Your task to perform on an android device: turn on wifi Image 0: 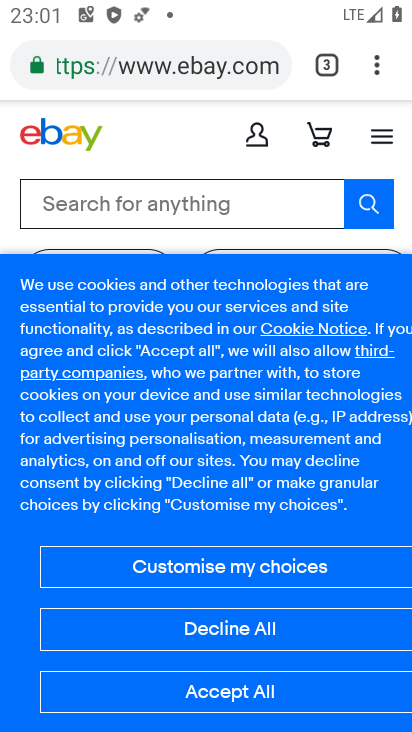
Step 0: press home button
Your task to perform on an android device: turn on wifi Image 1: 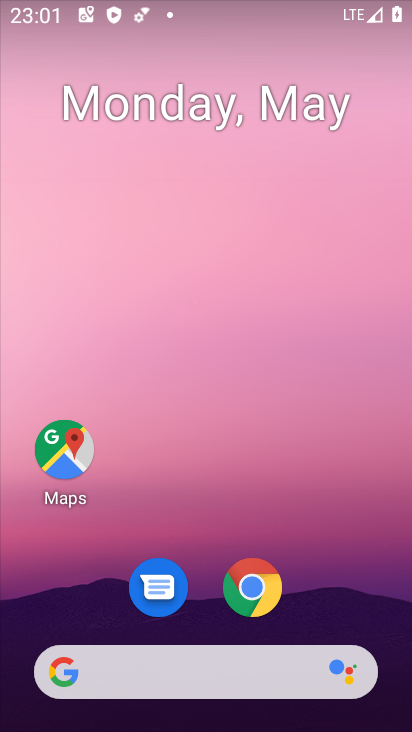
Step 1: drag from (207, 656) to (363, 16)
Your task to perform on an android device: turn on wifi Image 2: 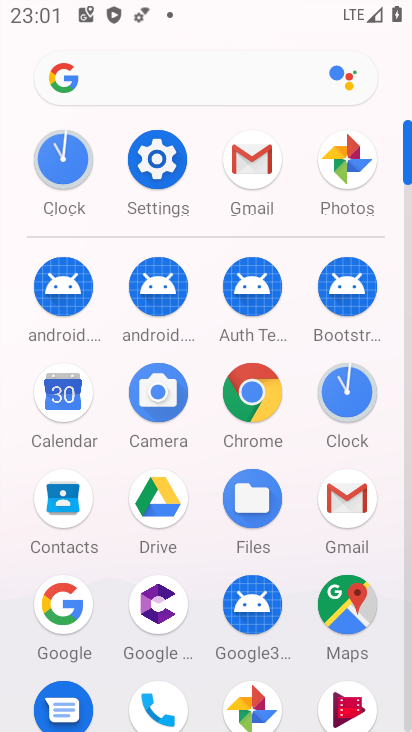
Step 2: click (162, 165)
Your task to perform on an android device: turn on wifi Image 3: 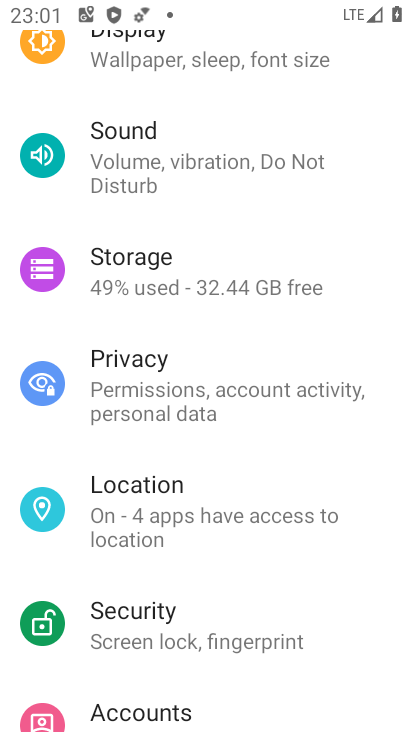
Step 3: drag from (165, 177) to (161, 599)
Your task to perform on an android device: turn on wifi Image 4: 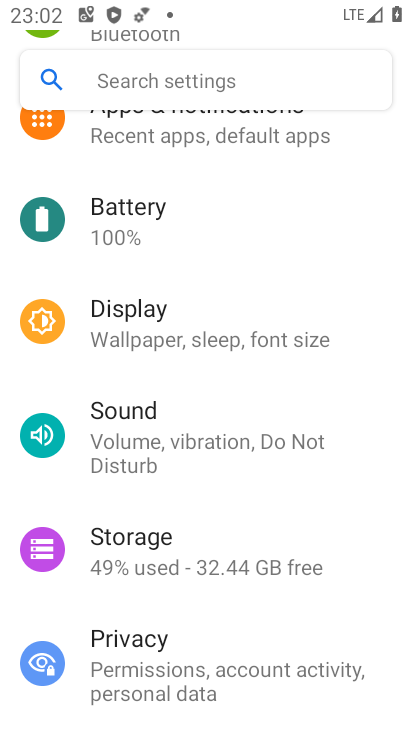
Step 4: drag from (149, 205) to (164, 595)
Your task to perform on an android device: turn on wifi Image 5: 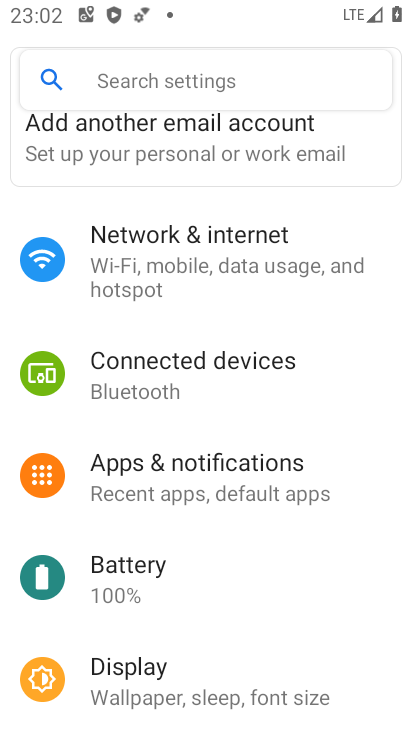
Step 5: click (163, 275)
Your task to perform on an android device: turn on wifi Image 6: 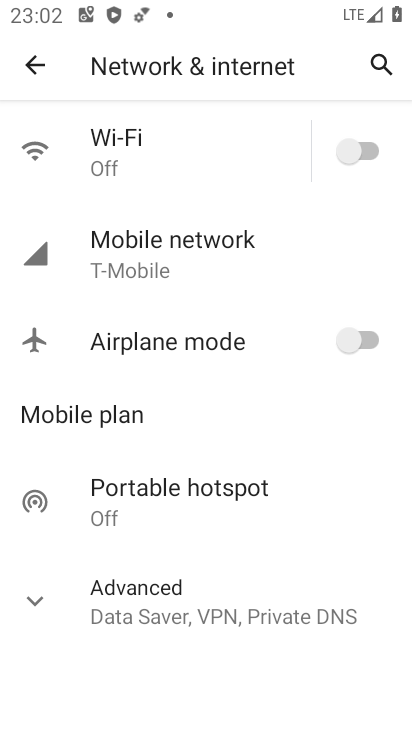
Step 6: click (161, 177)
Your task to perform on an android device: turn on wifi Image 7: 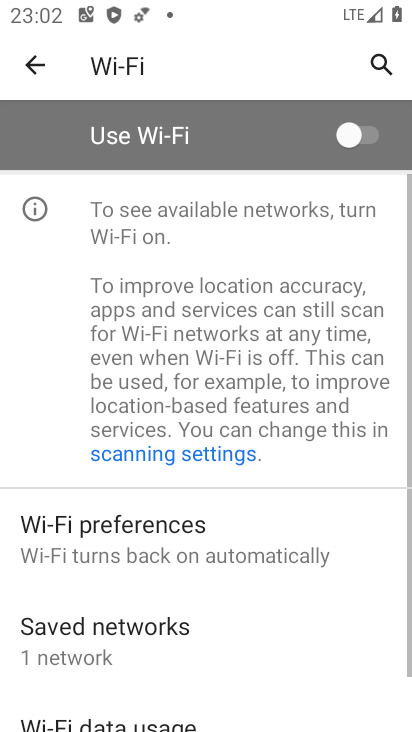
Step 7: click (349, 130)
Your task to perform on an android device: turn on wifi Image 8: 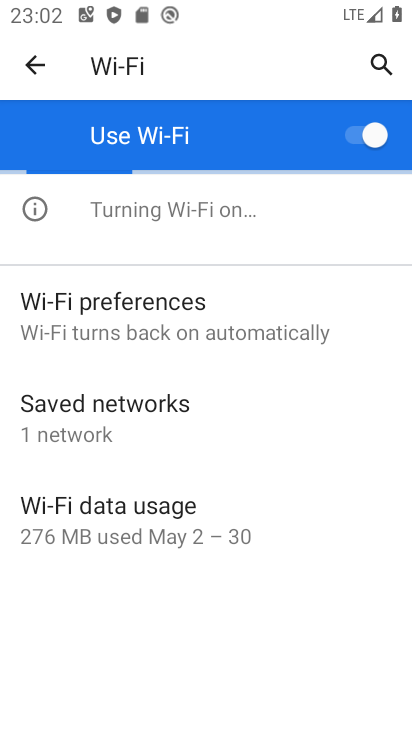
Step 8: task complete